Your task to perform on an android device: turn off data saver in the chrome app Image 0: 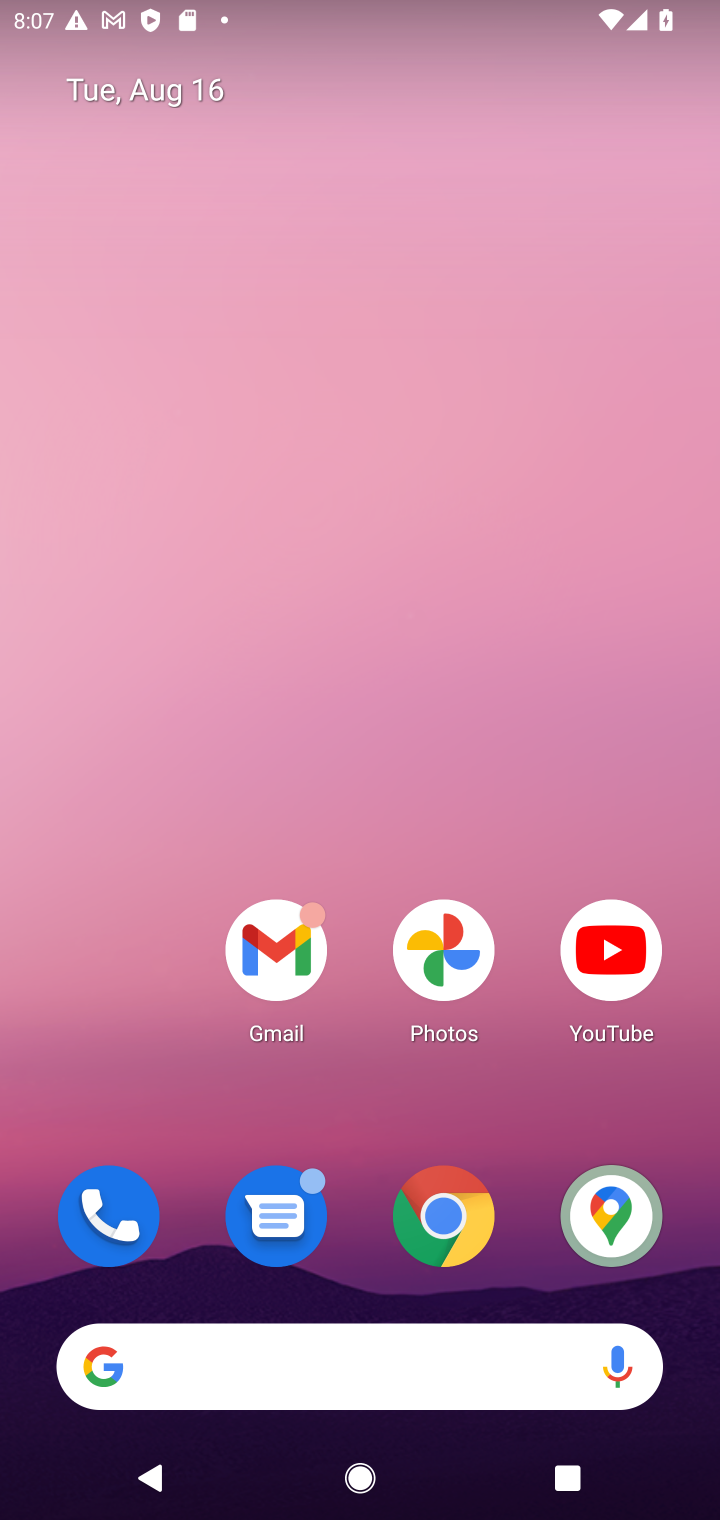
Step 0: drag from (322, 1316) to (633, 429)
Your task to perform on an android device: turn off data saver in the chrome app Image 1: 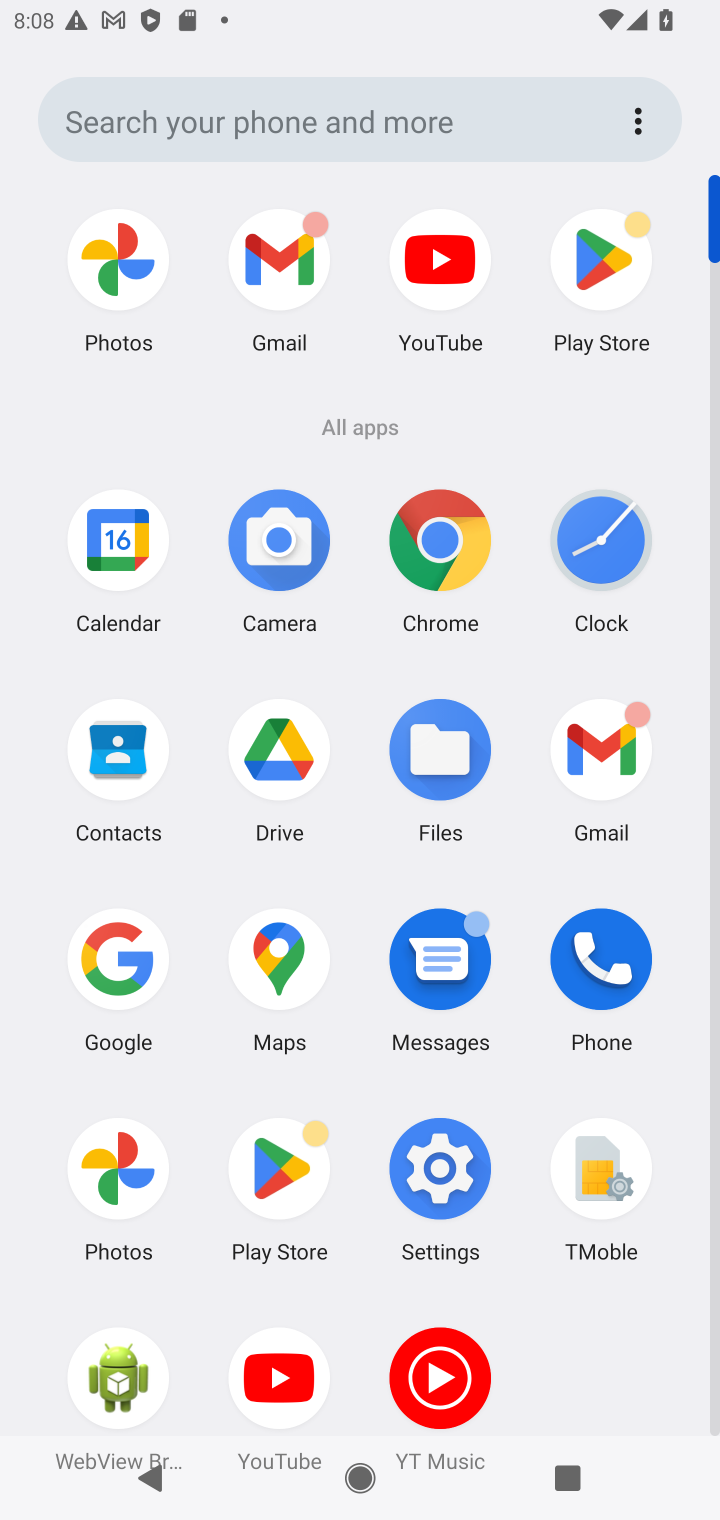
Step 1: click (453, 536)
Your task to perform on an android device: turn off data saver in the chrome app Image 2: 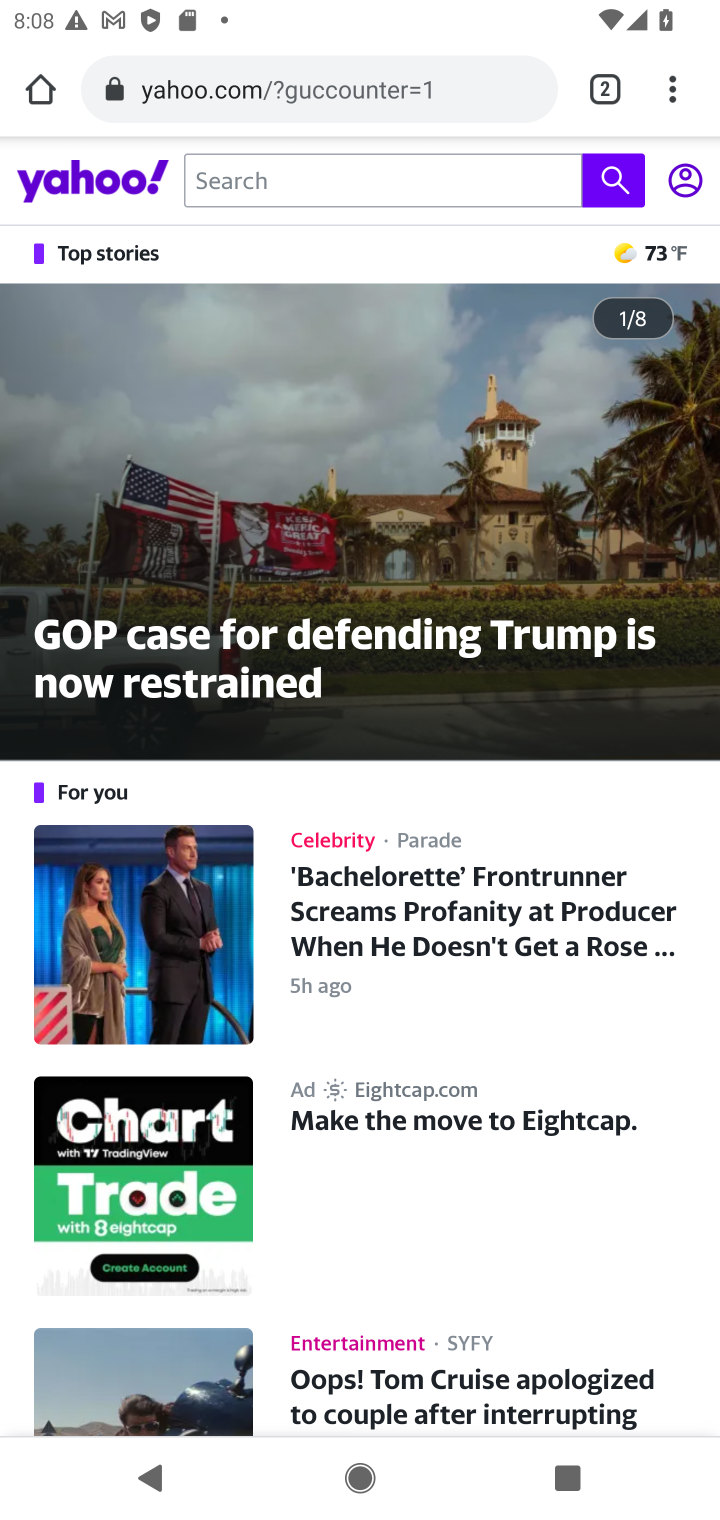
Step 2: click (668, 101)
Your task to perform on an android device: turn off data saver in the chrome app Image 3: 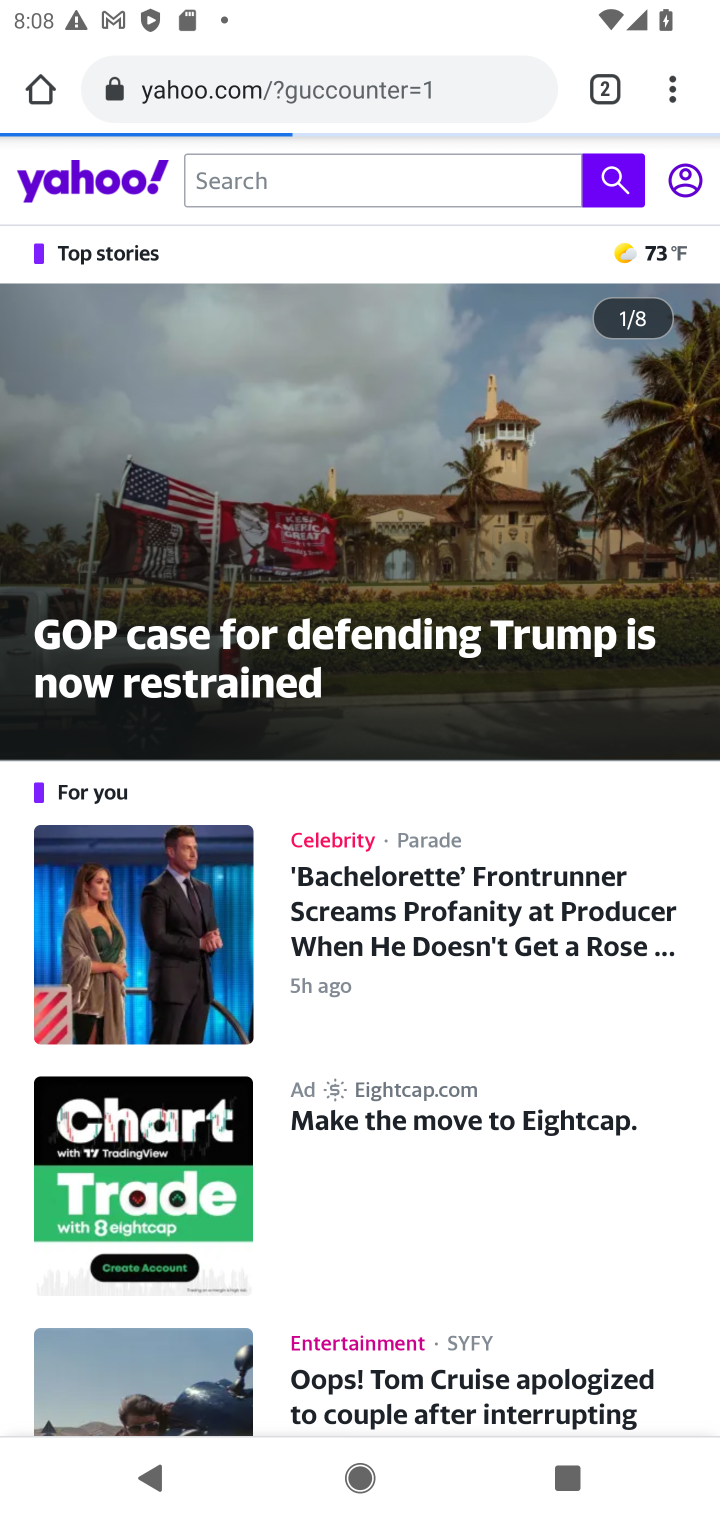
Step 3: drag from (659, 99) to (389, 1118)
Your task to perform on an android device: turn off data saver in the chrome app Image 4: 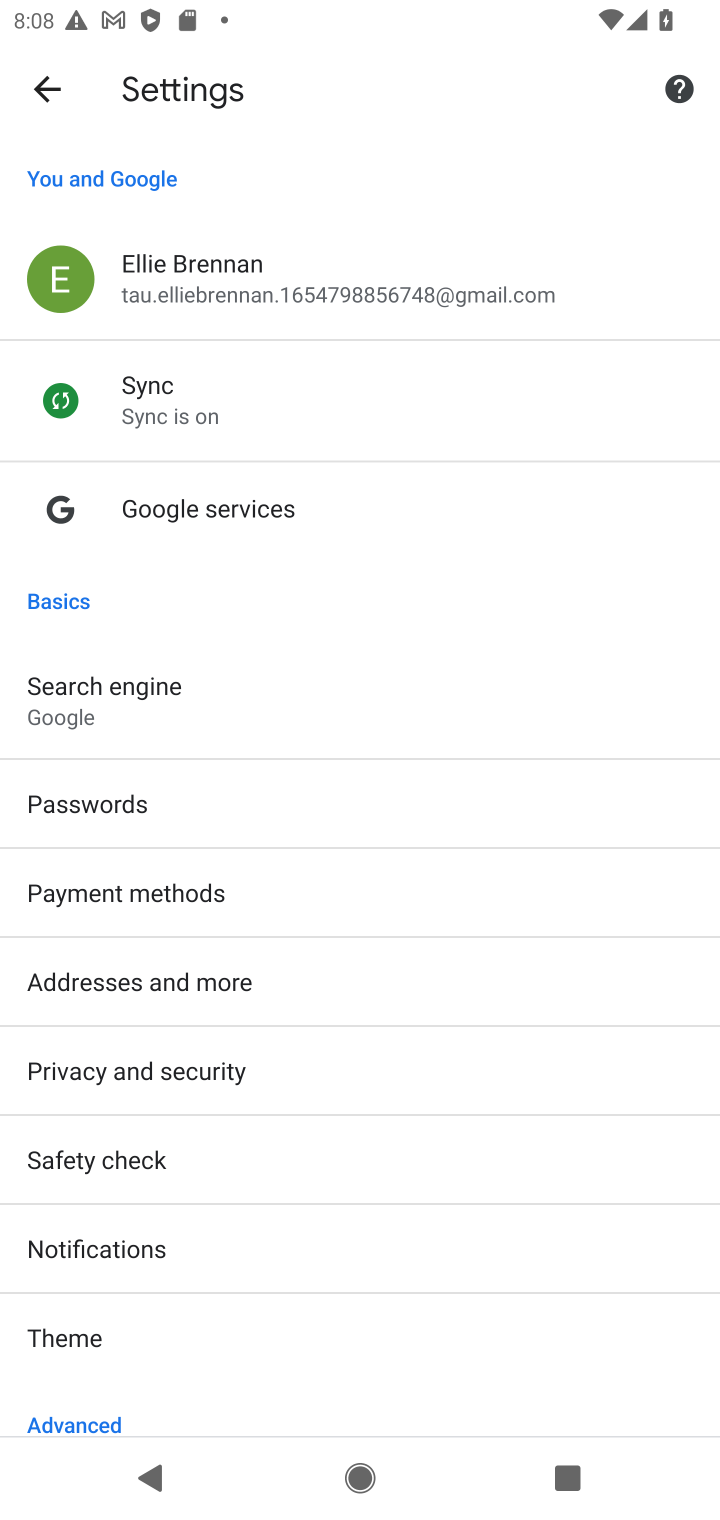
Step 4: drag from (233, 1226) to (144, 239)
Your task to perform on an android device: turn off data saver in the chrome app Image 5: 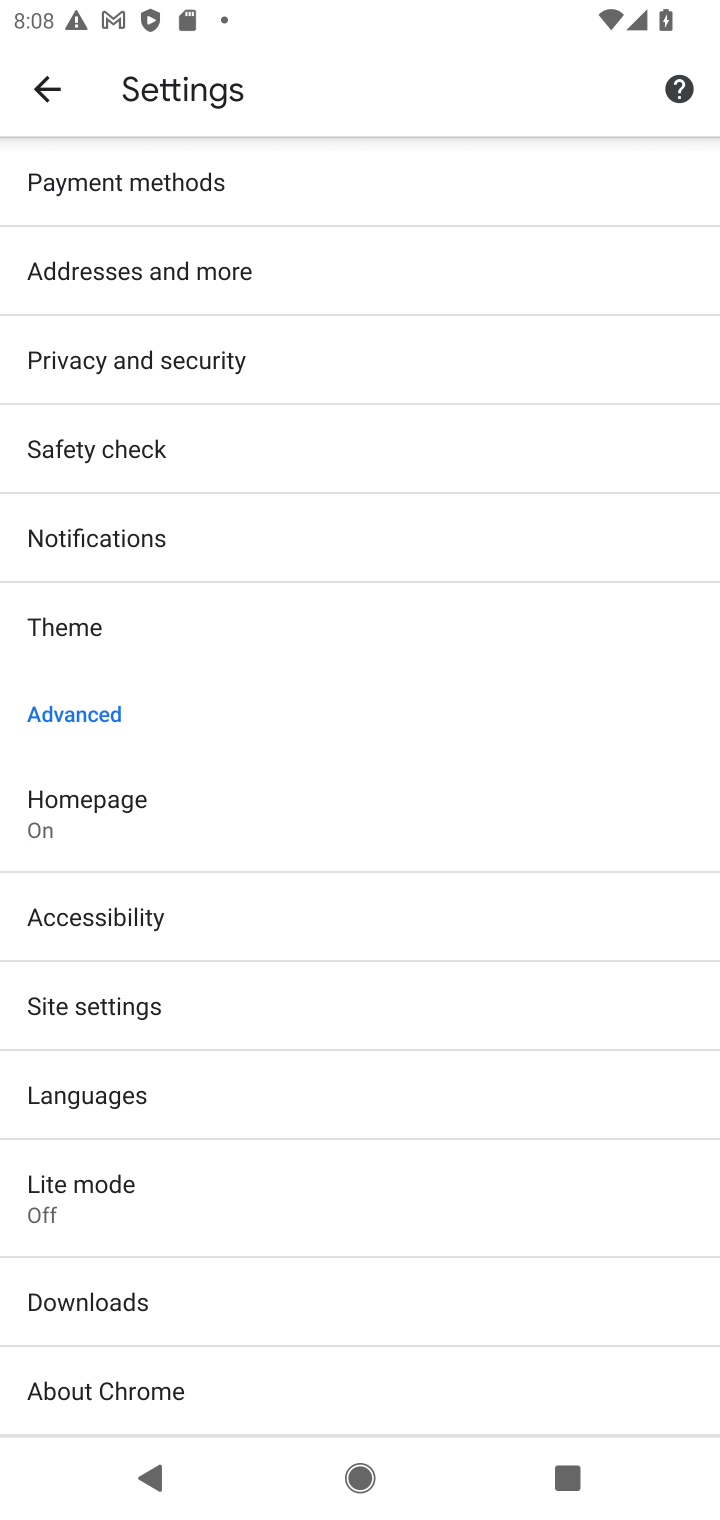
Step 5: click (111, 1222)
Your task to perform on an android device: turn off data saver in the chrome app Image 6: 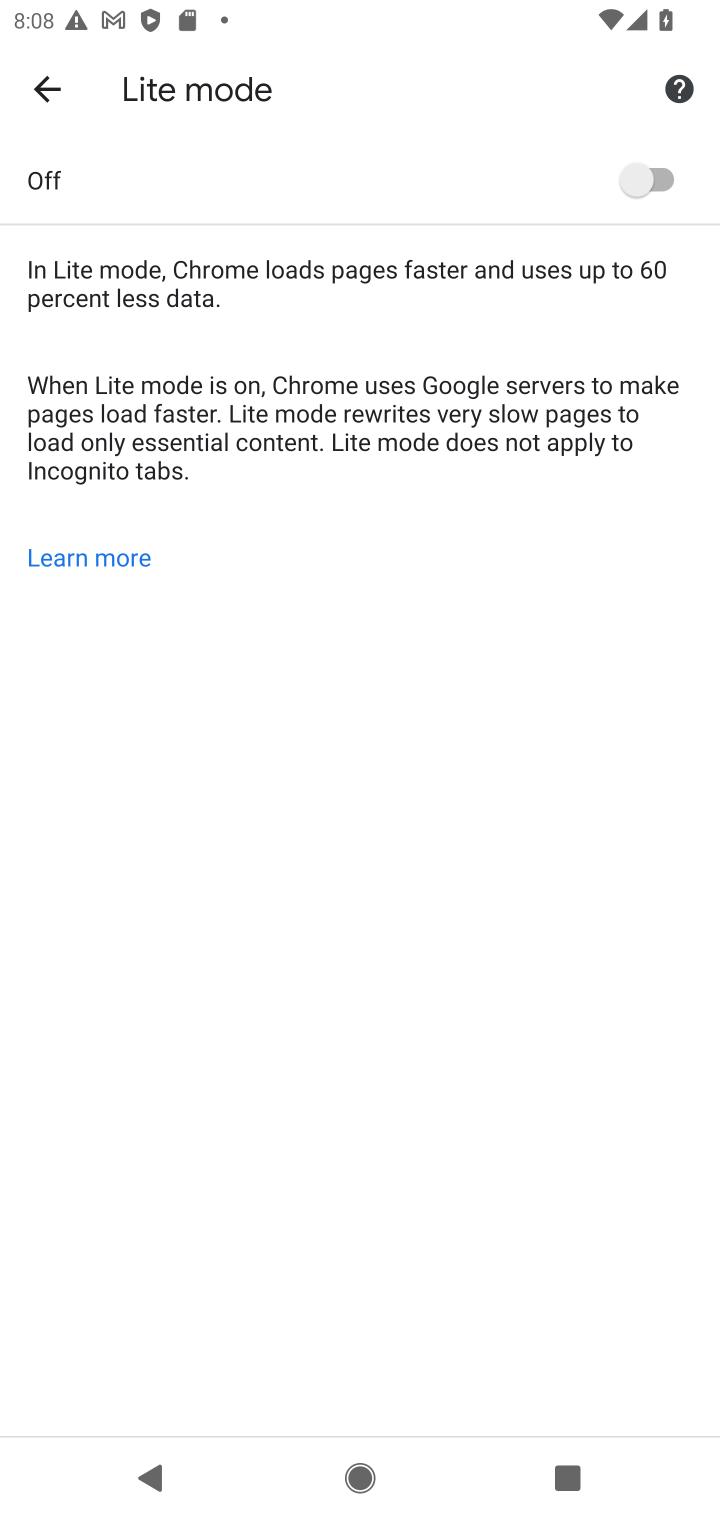
Step 6: task complete